Your task to perform on an android device: turn pop-ups off in chrome Image 0: 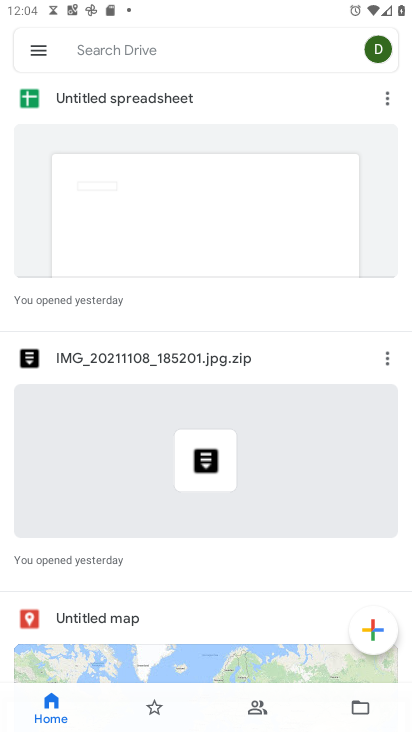
Step 0: press home button
Your task to perform on an android device: turn pop-ups off in chrome Image 1: 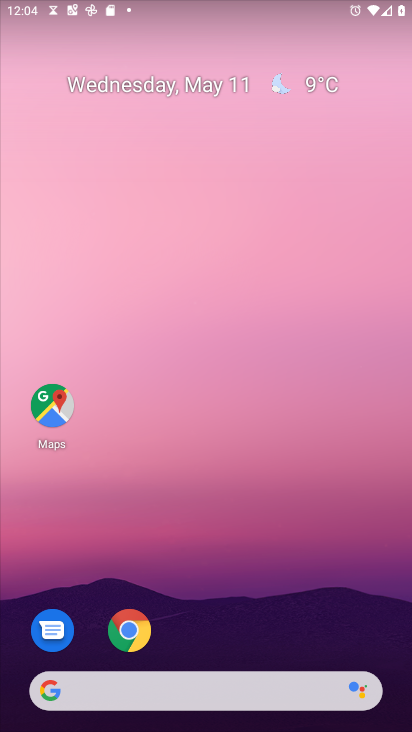
Step 1: click (126, 634)
Your task to perform on an android device: turn pop-ups off in chrome Image 2: 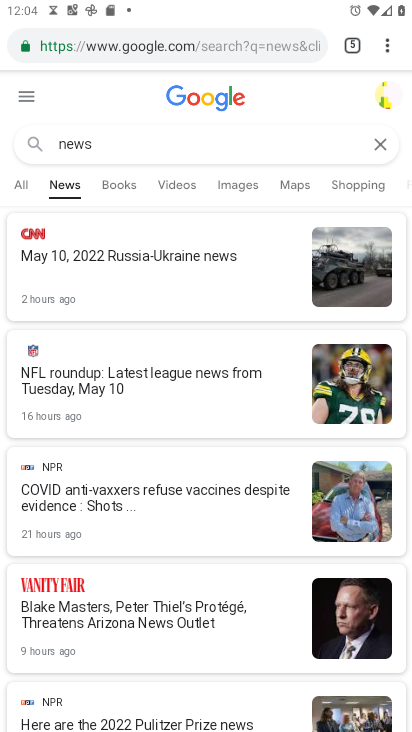
Step 2: click (387, 38)
Your task to perform on an android device: turn pop-ups off in chrome Image 3: 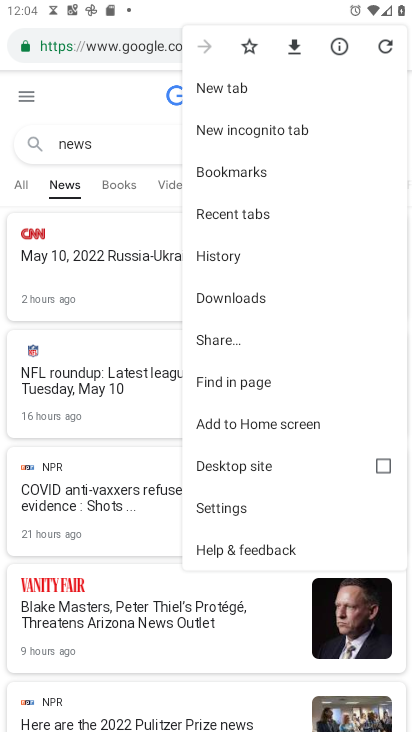
Step 3: click (272, 502)
Your task to perform on an android device: turn pop-ups off in chrome Image 4: 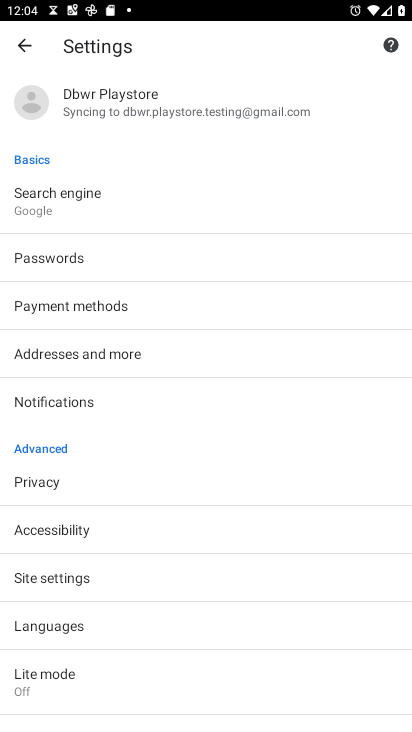
Step 4: click (190, 575)
Your task to perform on an android device: turn pop-ups off in chrome Image 5: 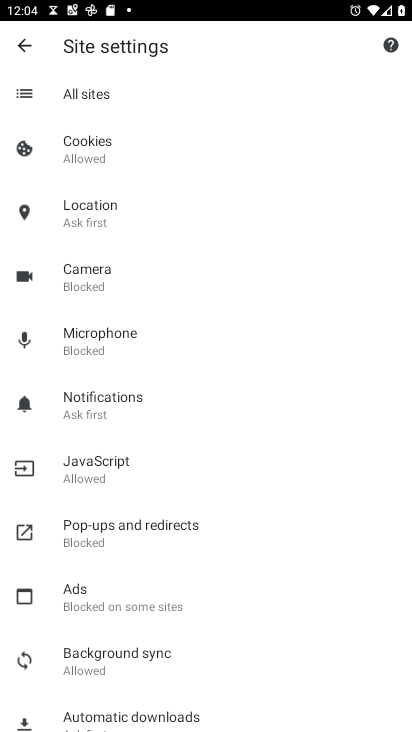
Step 5: drag from (201, 659) to (222, 165)
Your task to perform on an android device: turn pop-ups off in chrome Image 6: 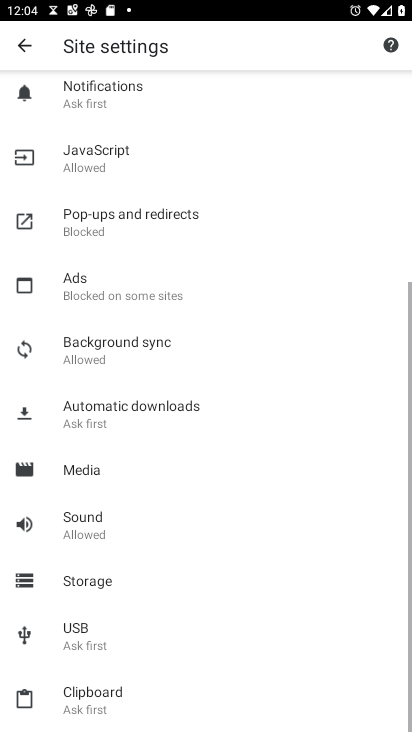
Step 6: drag from (236, 543) to (322, 144)
Your task to perform on an android device: turn pop-ups off in chrome Image 7: 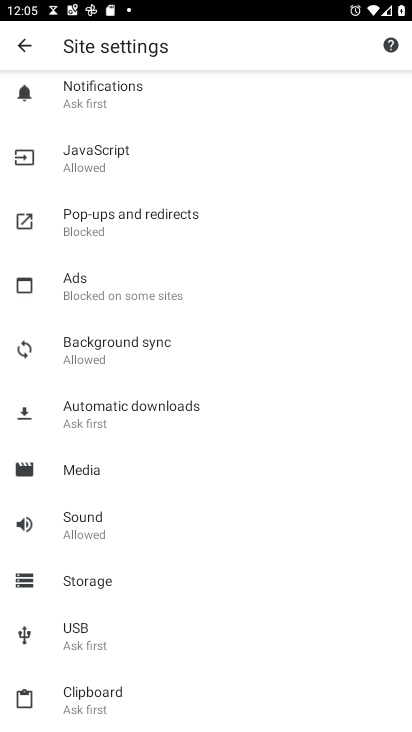
Step 7: drag from (210, 215) to (253, 545)
Your task to perform on an android device: turn pop-ups off in chrome Image 8: 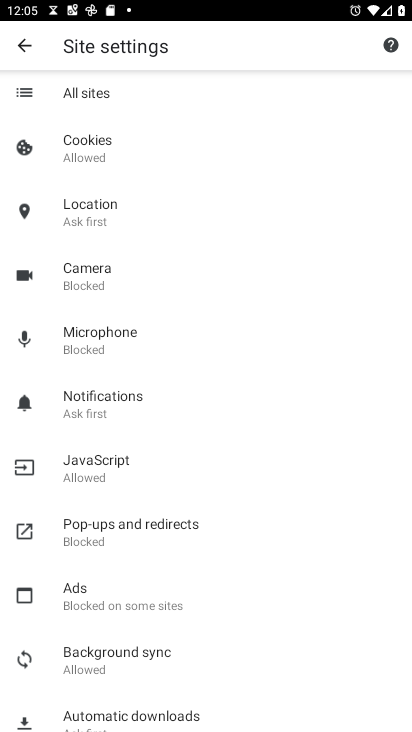
Step 8: drag from (307, 165) to (234, 593)
Your task to perform on an android device: turn pop-ups off in chrome Image 9: 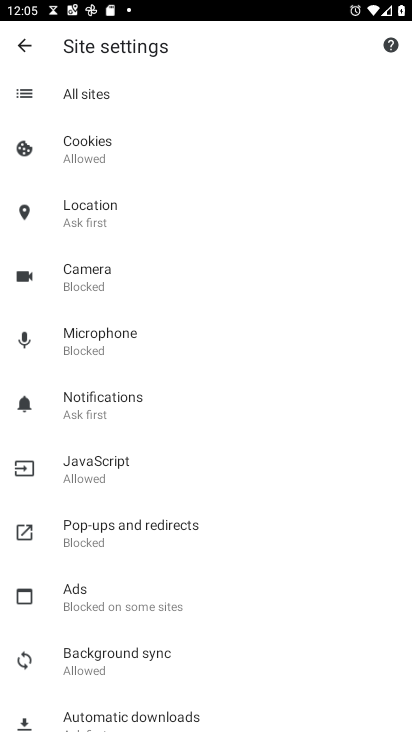
Step 9: click (302, 100)
Your task to perform on an android device: turn pop-ups off in chrome Image 10: 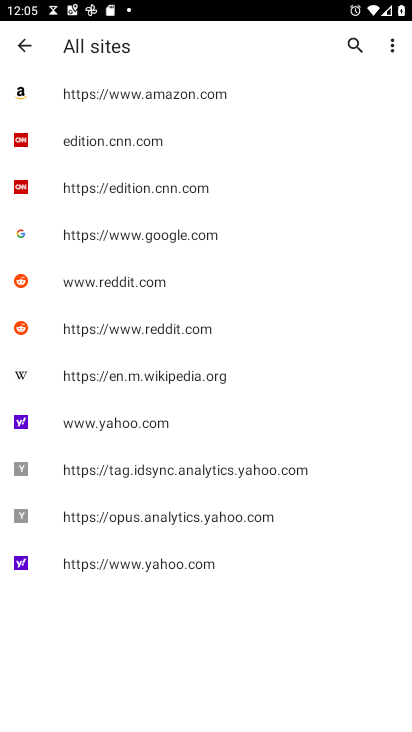
Step 10: click (35, 31)
Your task to perform on an android device: turn pop-ups off in chrome Image 11: 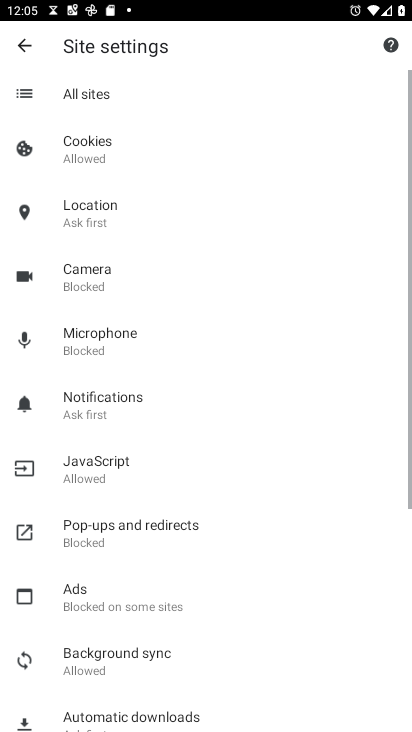
Step 11: click (31, 43)
Your task to perform on an android device: turn pop-ups off in chrome Image 12: 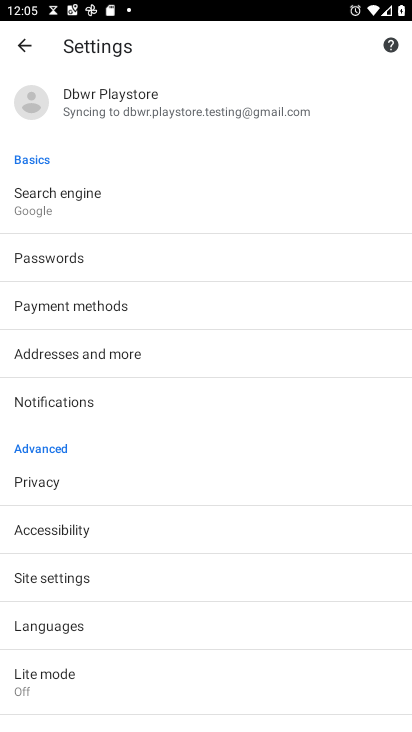
Step 12: drag from (152, 671) to (197, 203)
Your task to perform on an android device: turn pop-ups off in chrome Image 13: 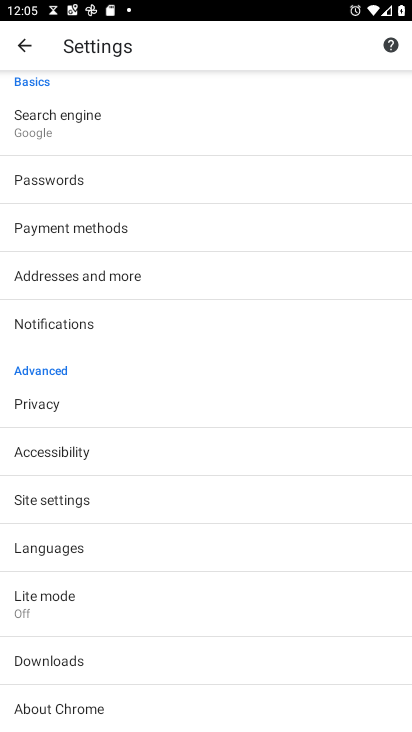
Step 13: drag from (202, 644) to (343, 201)
Your task to perform on an android device: turn pop-ups off in chrome Image 14: 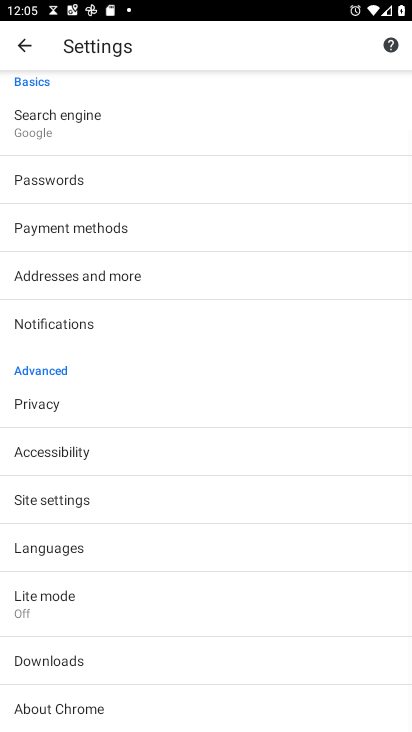
Step 14: drag from (258, 685) to (381, 230)
Your task to perform on an android device: turn pop-ups off in chrome Image 15: 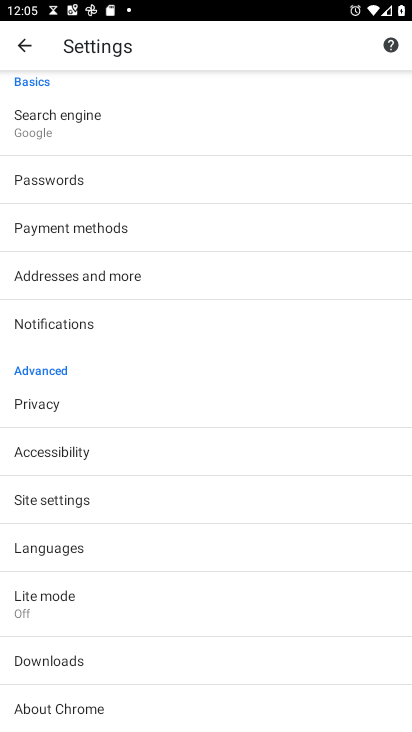
Step 15: drag from (344, 215) to (276, 659)
Your task to perform on an android device: turn pop-ups off in chrome Image 16: 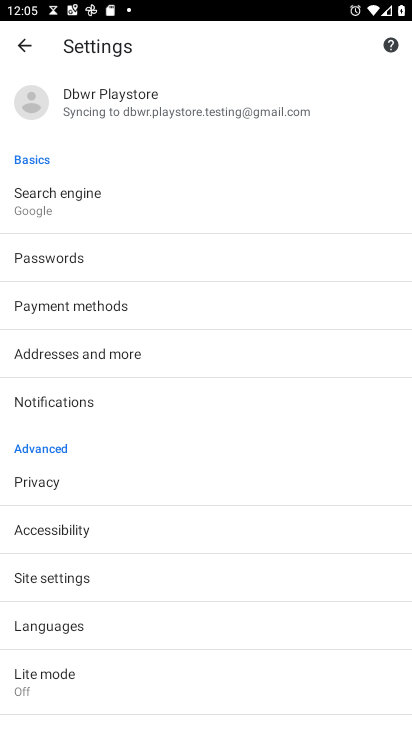
Step 16: click (229, 530)
Your task to perform on an android device: turn pop-ups off in chrome Image 17: 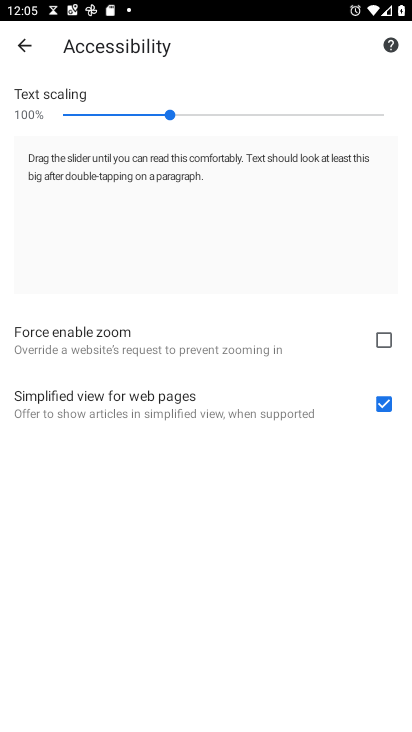
Step 17: click (19, 51)
Your task to perform on an android device: turn pop-ups off in chrome Image 18: 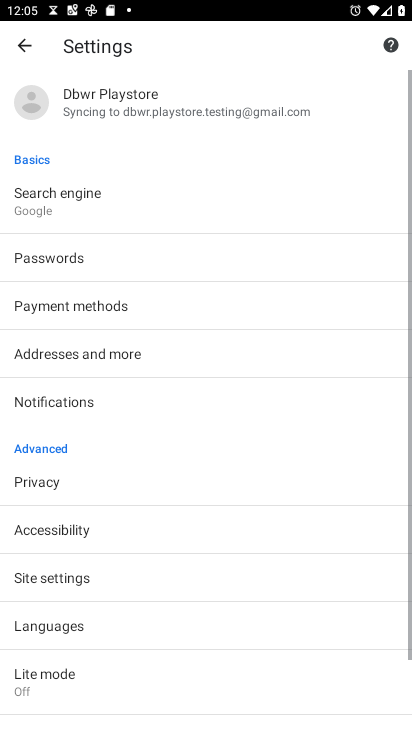
Step 18: click (24, 48)
Your task to perform on an android device: turn pop-ups off in chrome Image 19: 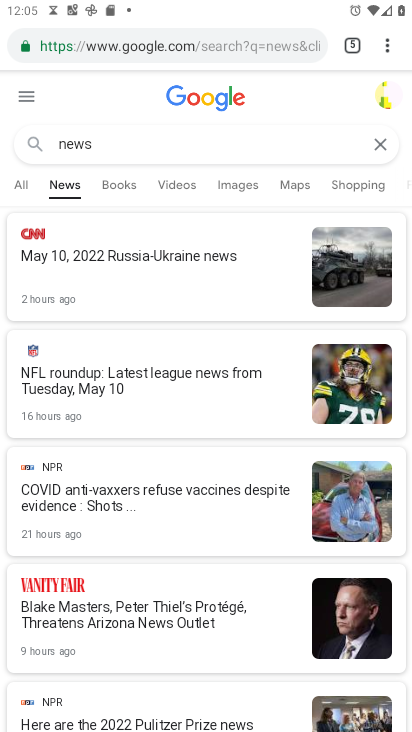
Step 19: click (349, 49)
Your task to perform on an android device: turn pop-ups off in chrome Image 20: 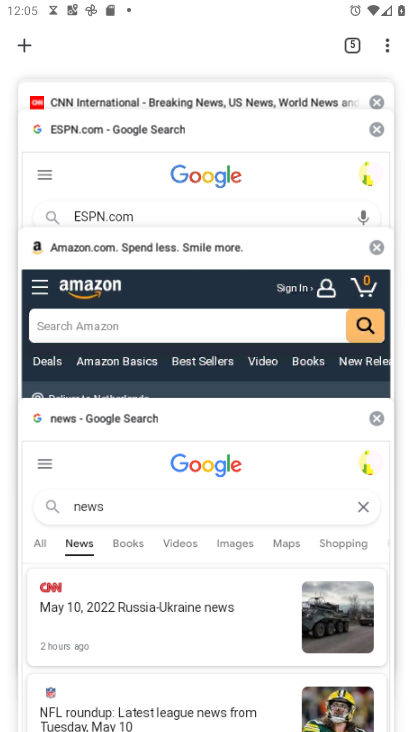
Step 20: click (377, 415)
Your task to perform on an android device: turn pop-ups off in chrome Image 21: 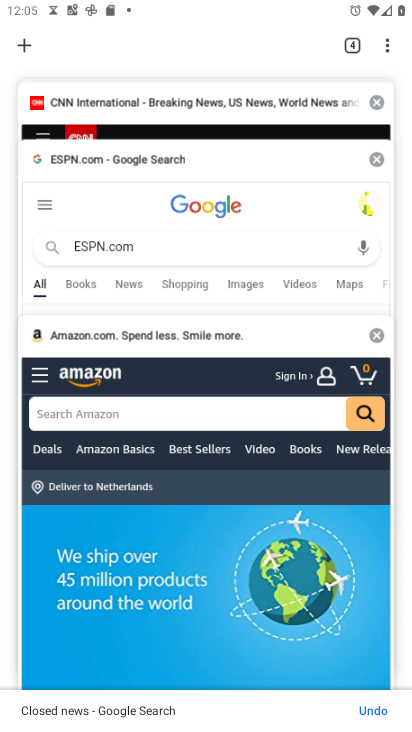
Step 21: click (375, 334)
Your task to perform on an android device: turn pop-ups off in chrome Image 22: 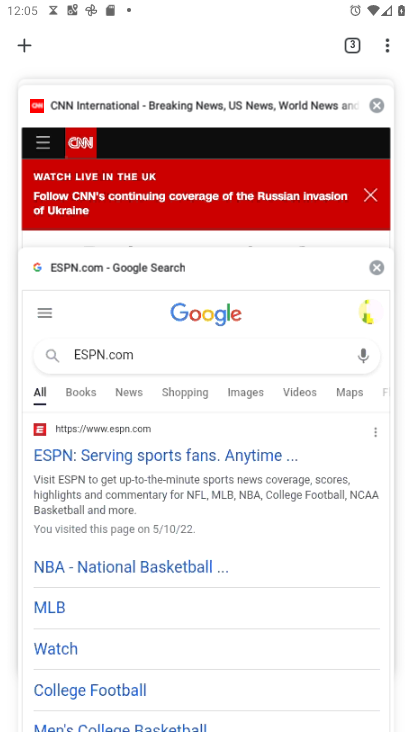
Step 22: click (382, 159)
Your task to perform on an android device: turn pop-ups off in chrome Image 23: 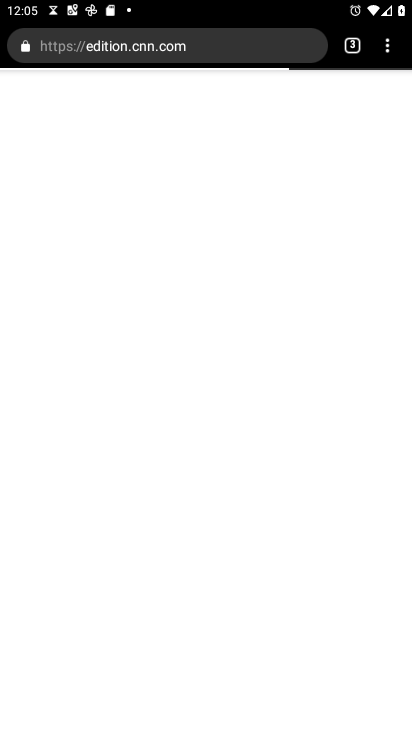
Step 23: press home button
Your task to perform on an android device: turn pop-ups off in chrome Image 24: 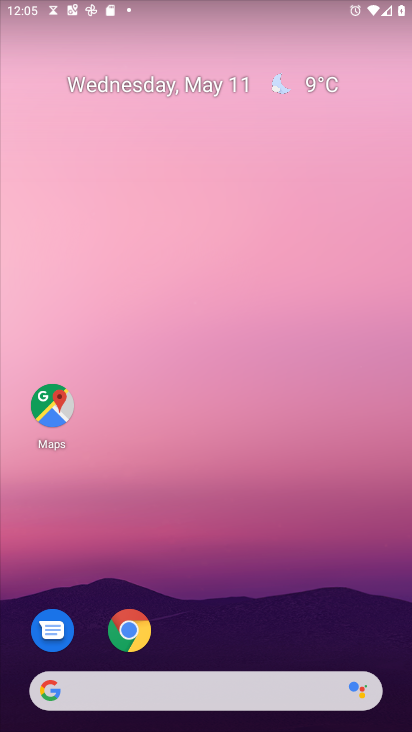
Step 24: click (130, 635)
Your task to perform on an android device: turn pop-ups off in chrome Image 25: 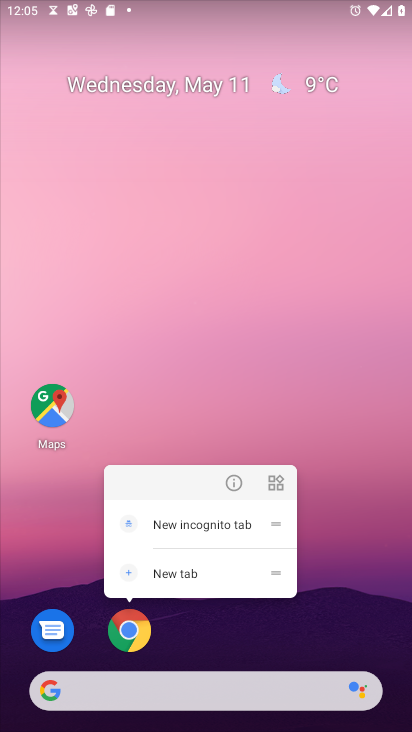
Step 25: click (130, 635)
Your task to perform on an android device: turn pop-ups off in chrome Image 26: 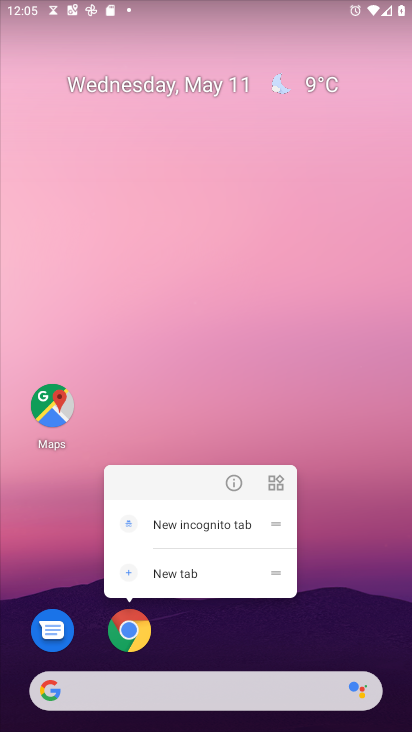
Step 26: click (132, 634)
Your task to perform on an android device: turn pop-ups off in chrome Image 27: 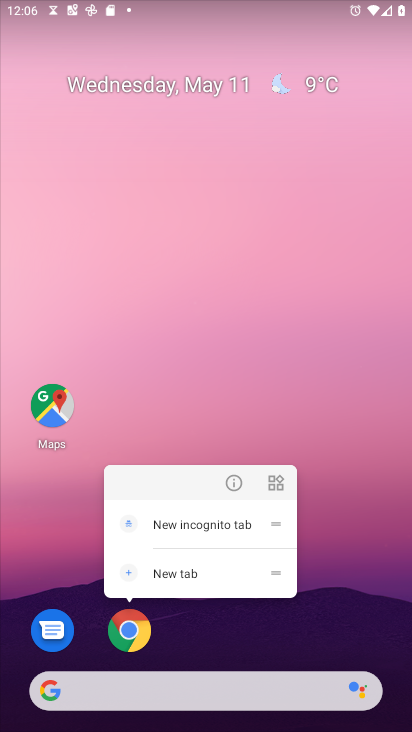
Step 27: click (131, 640)
Your task to perform on an android device: turn pop-ups off in chrome Image 28: 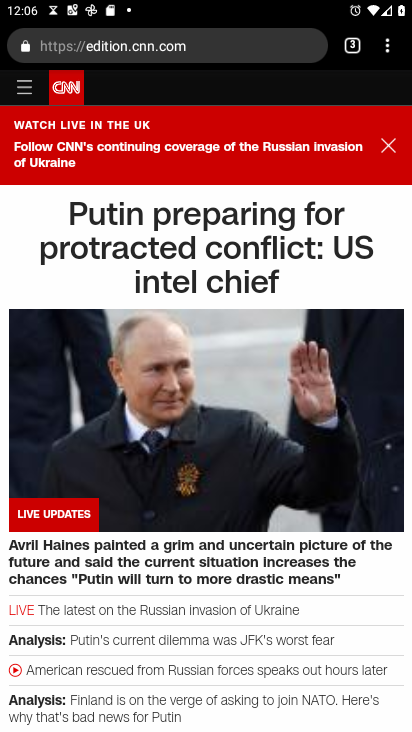
Step 28: click (391, 52)
Your task to perform on an android device: turn pop-ups off in chrome Image 29: 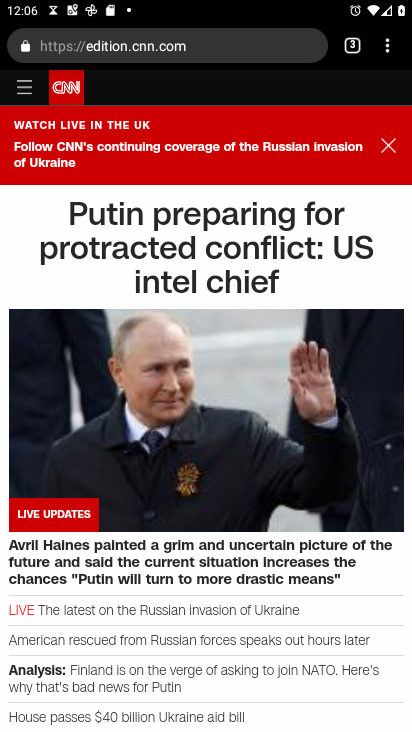
Step 29: click (386, 42)
Your task to perform on an android device: turn pop-ups off in chrome Image 30: 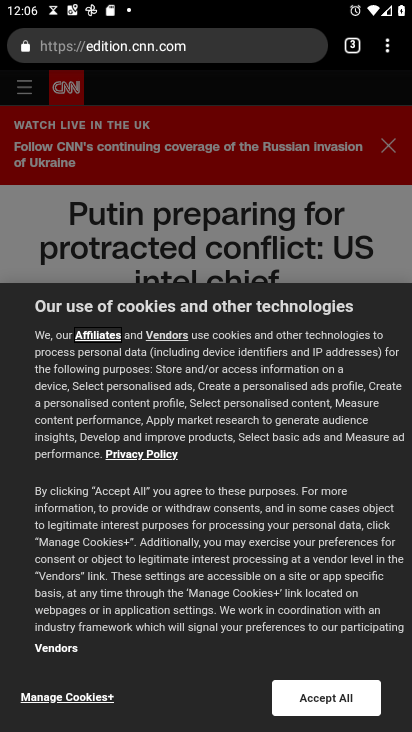
Step 30: click (386, 42)
Your task to perform on an android device: turn pop-ups off in chrome Image 31: 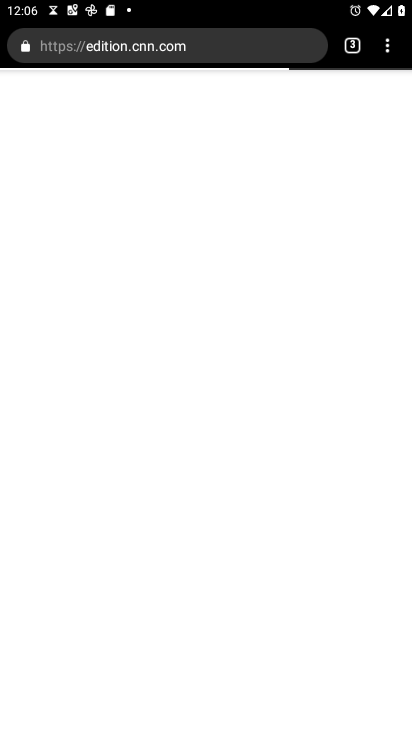
Step 31: click (386, 42)
Your task to perform on an android device: turn pop-ups off in chrome Image 32: 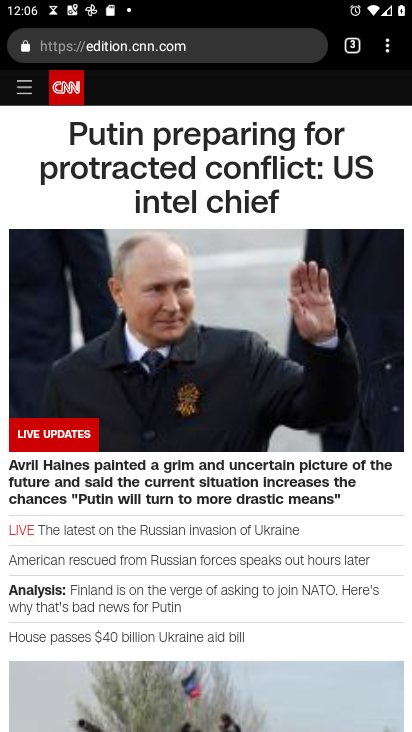
Step 32: click (386, 42)
Your task to perform on an android device: turn pop-ups off in chrome Image 33: 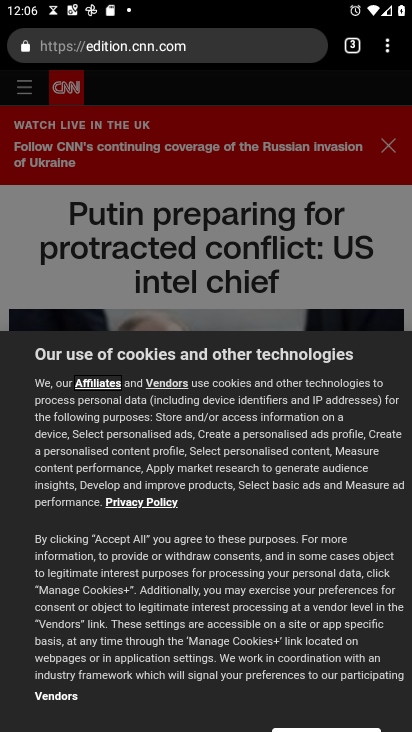
Step 33: click (385, 44)
Your task to perform on an android device: turn pop-ups off in chrome Image 34: 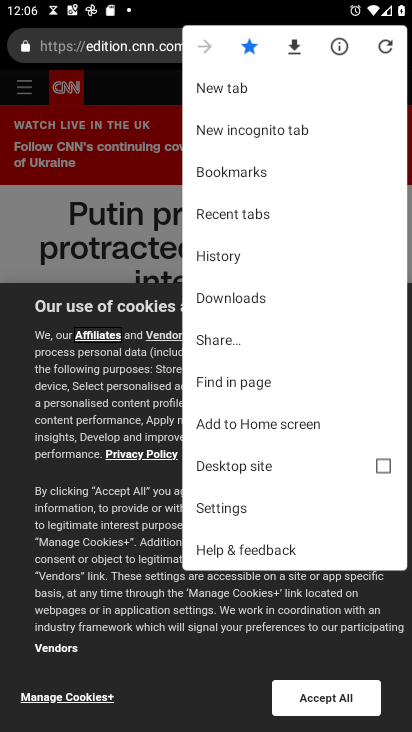
Step 34: click (222, 510)
Your task to perform on an android device: turn pop-ups off in chrome Image 35: 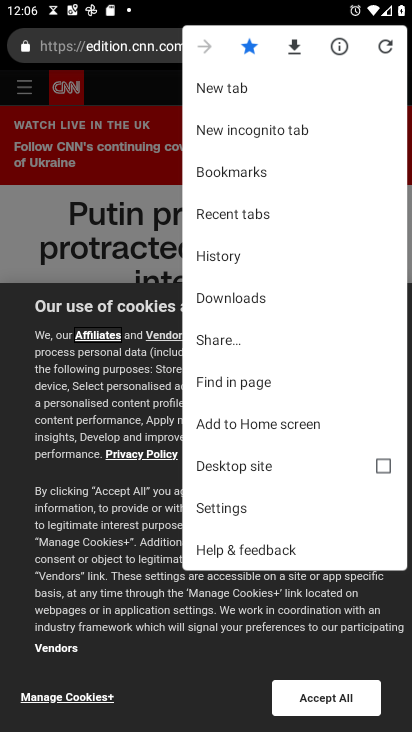
Step 35: click (222, 510)
Your task to perform on an android device: turn pop-ups off in chrome Image 36: 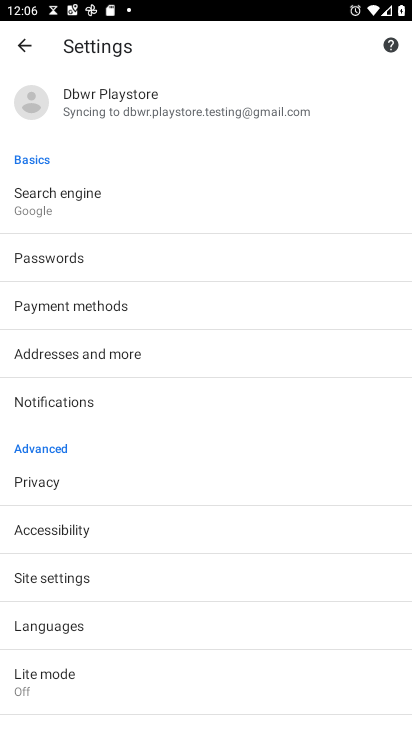
Step 36: click (147, 573)
Your task to perform on an android device: turn pop-ups off in chrome Image 37: 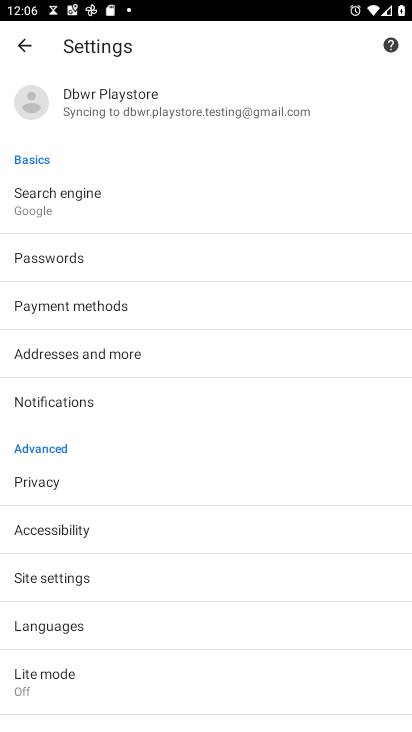
Step 37: click (147, 573)
Your task to perform on an android device: turn pop-ups off in chrome Image 38: 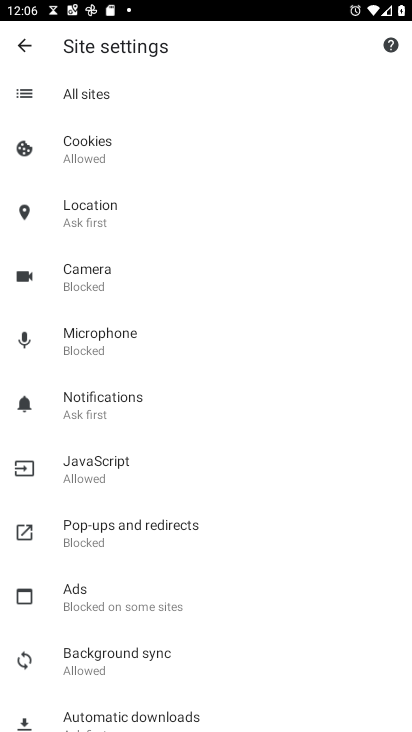
Step 38: task complete